Your task to perform on an android device: Add bose soundsport free to the cart on bestbuy Image 0: 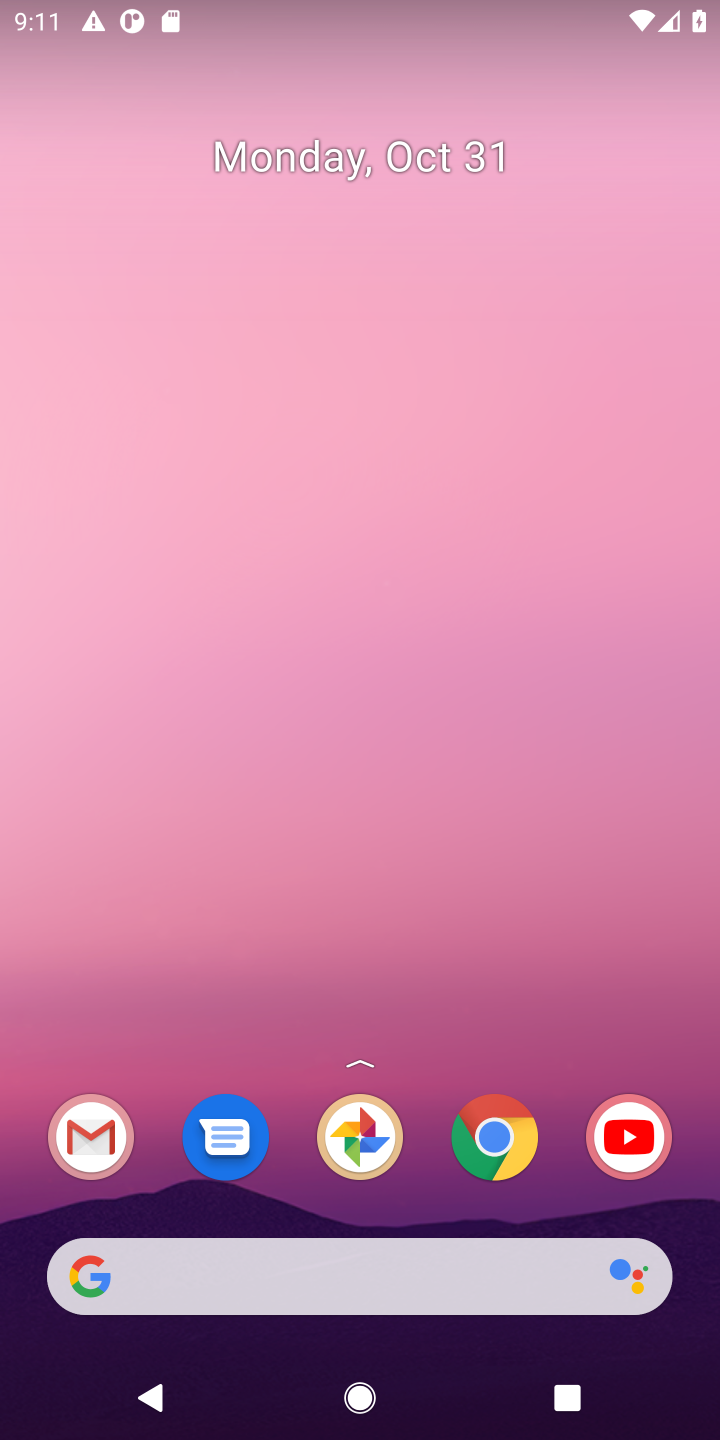
Step 0: click (492, 1156)
Your task to perform on an android device: Add bose soundsport free to the cart on bestbuy Image 1: 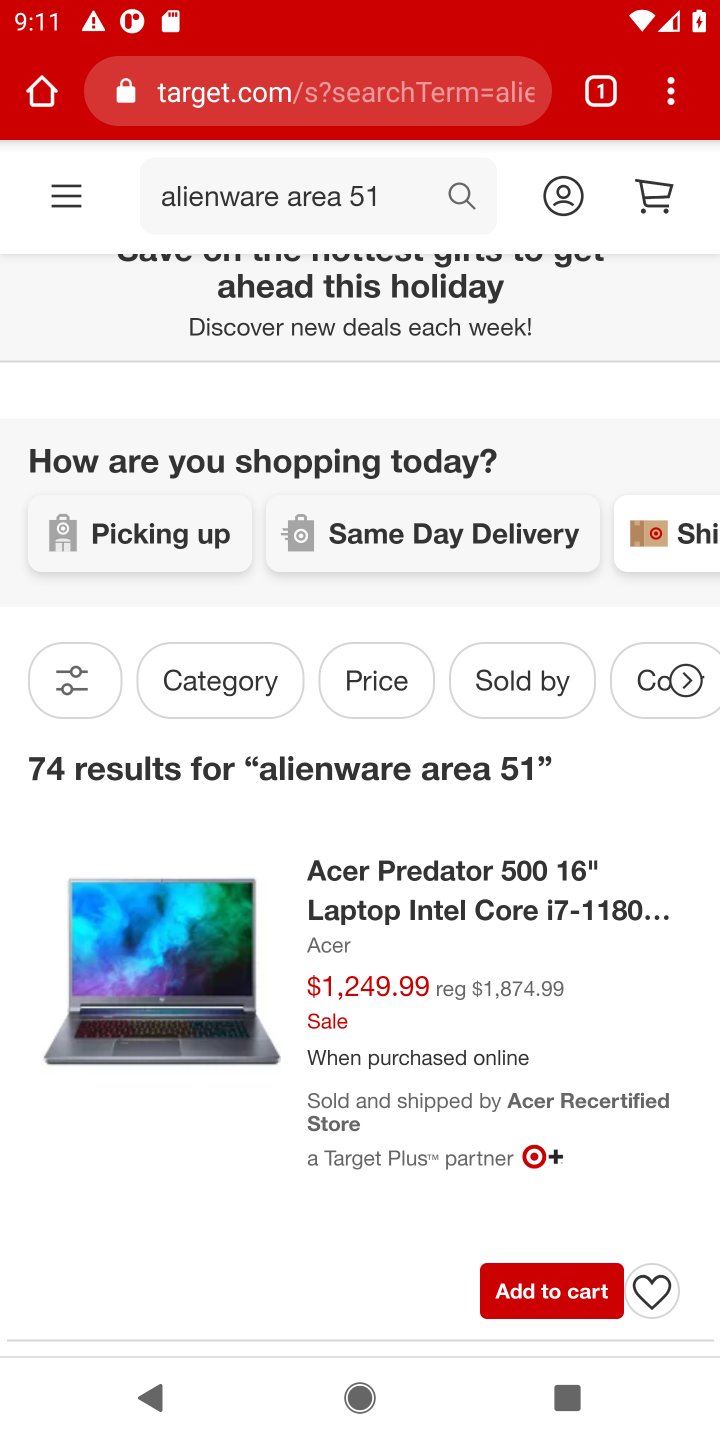
Step 1: click (288, 115)
Your task to perform on an android device: Add bose soundsport free to the cart on bestbuy Image 2: 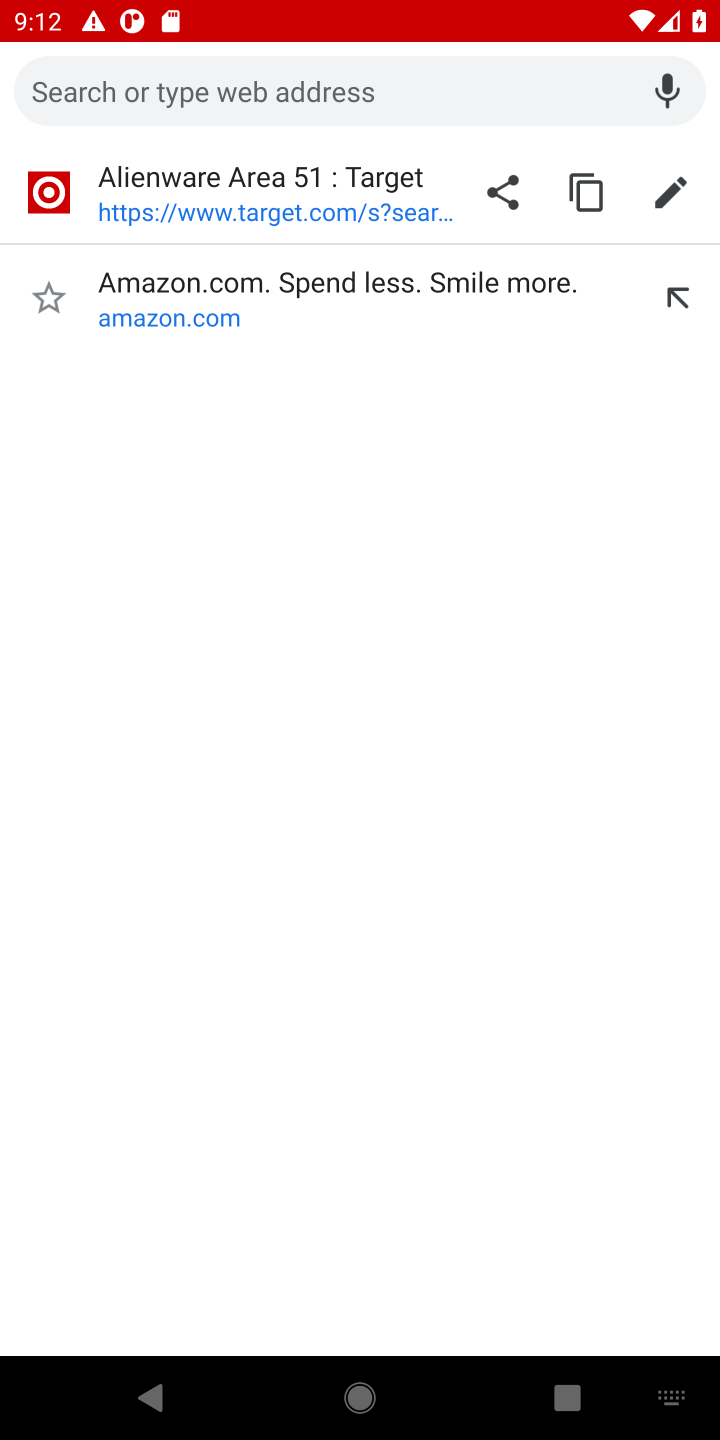
Step 2: type "bestbuy"
Your task to perform on an android device: Add bose soundsport free to the cart on bestbuy Image 3: 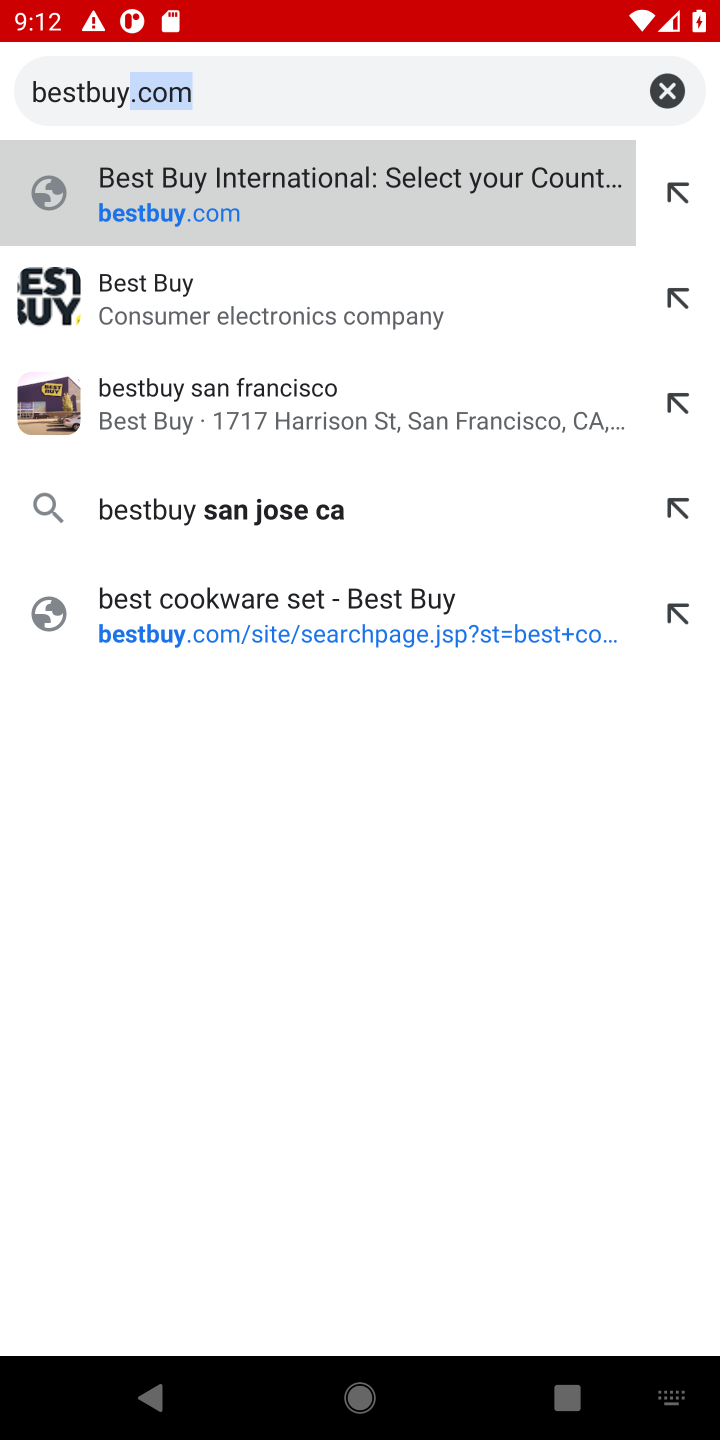
Step 3: click (187, 223)
Your task to perform on an android device: Add bose soundsport free to the cart on bestbuy Image 4: 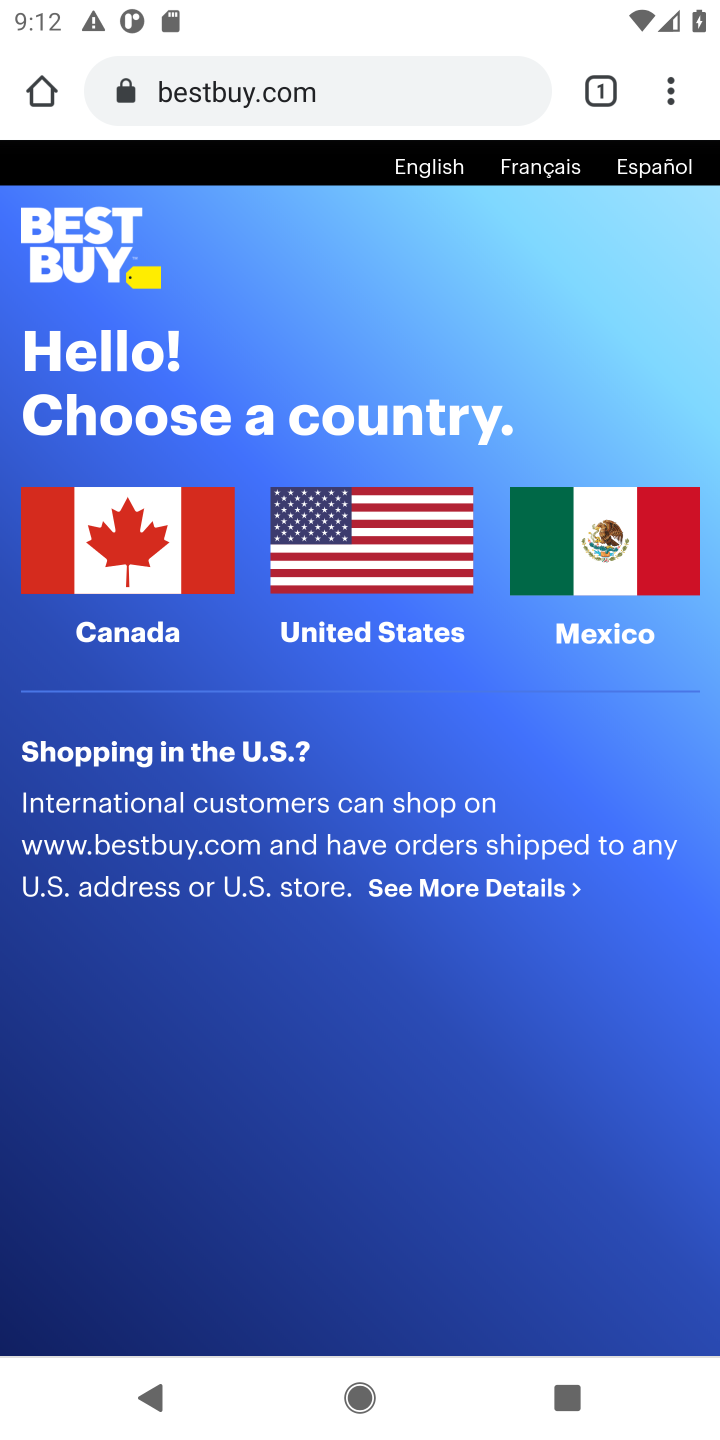
Step 4: click (382, 556)
Your task to perform on an android device: Add bose soundsport free to the cart on bestbuy Image 5: 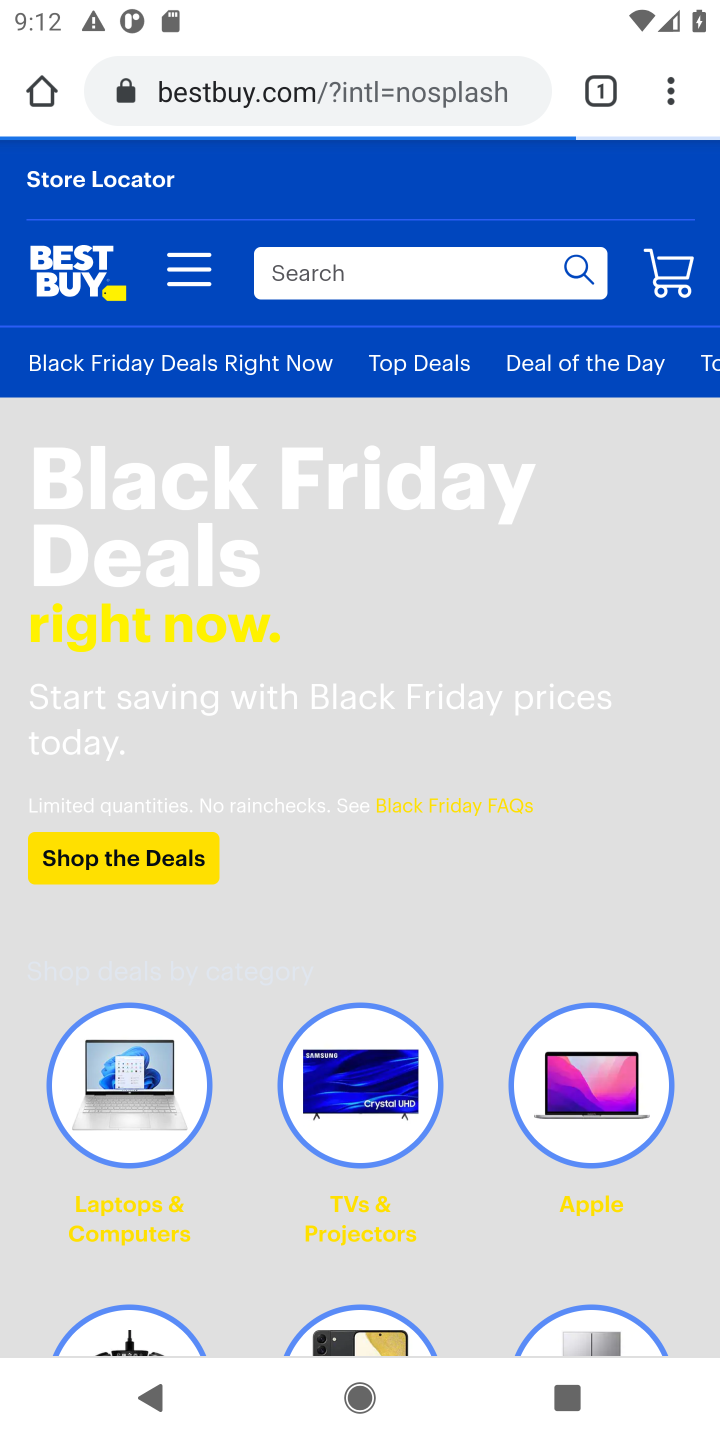
Step 5: click (364, 278)
Your task to perform on an android device: Add bose soundsport free to the cart on bestbuy Image 6: 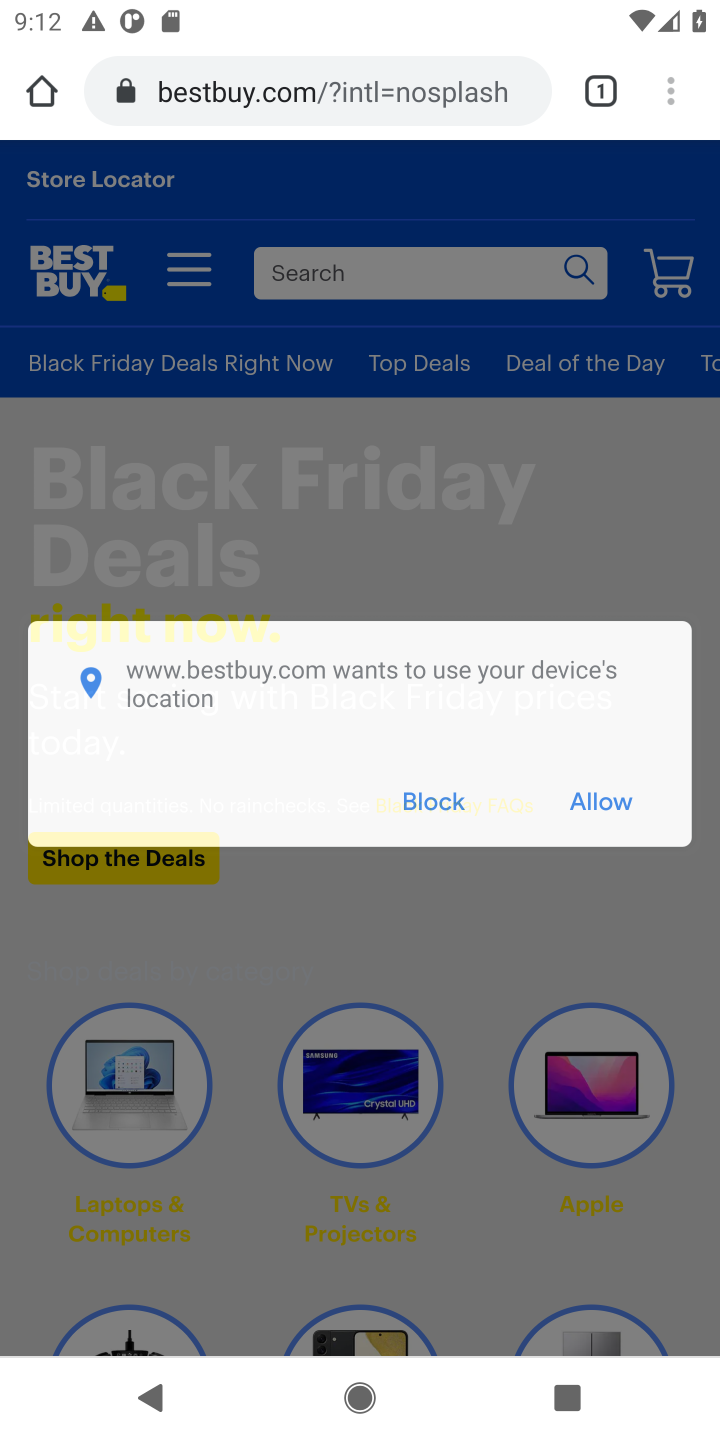
Step 6: type "bose soundsport free "
Your task to perform on an android device: Add bose soundsport free to the cart on bestbuy Image 7: 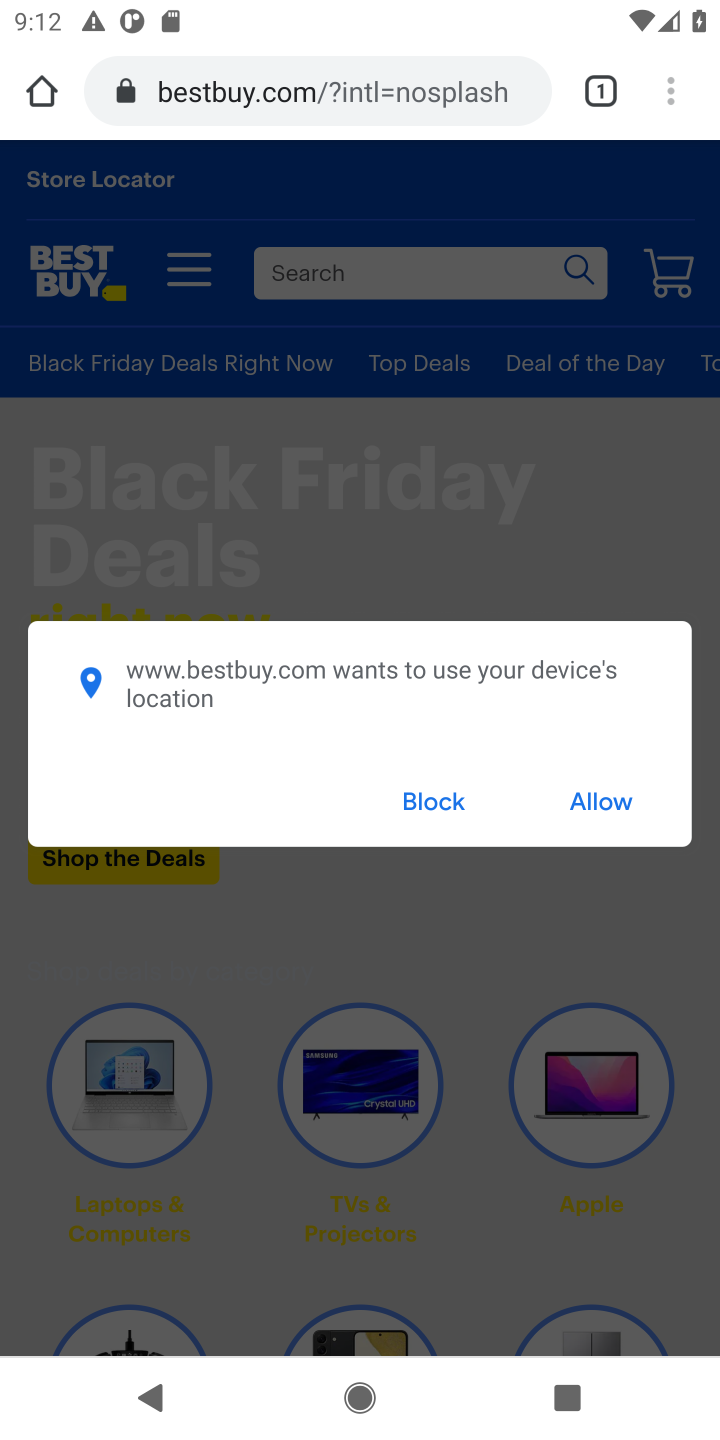
Step 7: click (441, 815)
Your task to perform on an android device: Add bose soundsport free to the cart on bestbuy Image 8: 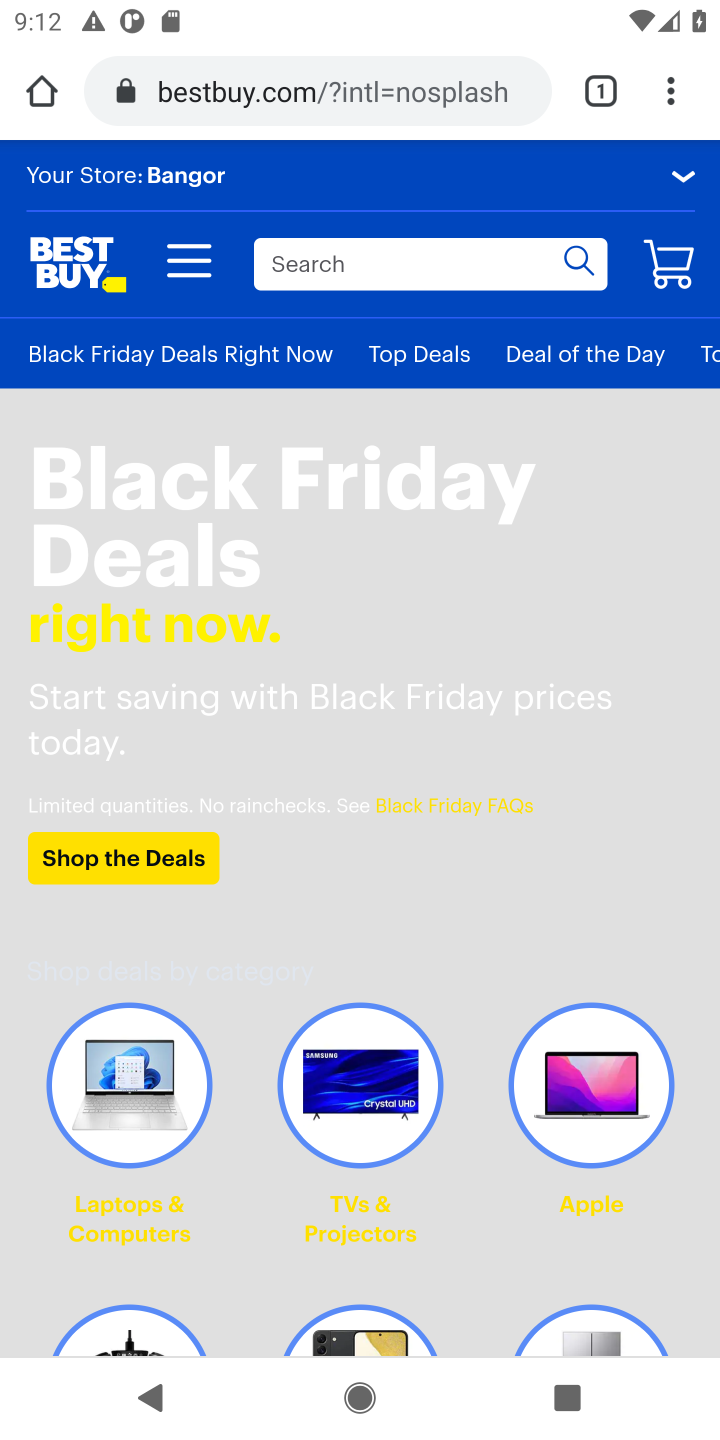
Step 8: click (378, 274)
Your task to perform on an android device: Add bose soundsport free to the cart on bestbuy Image 9: 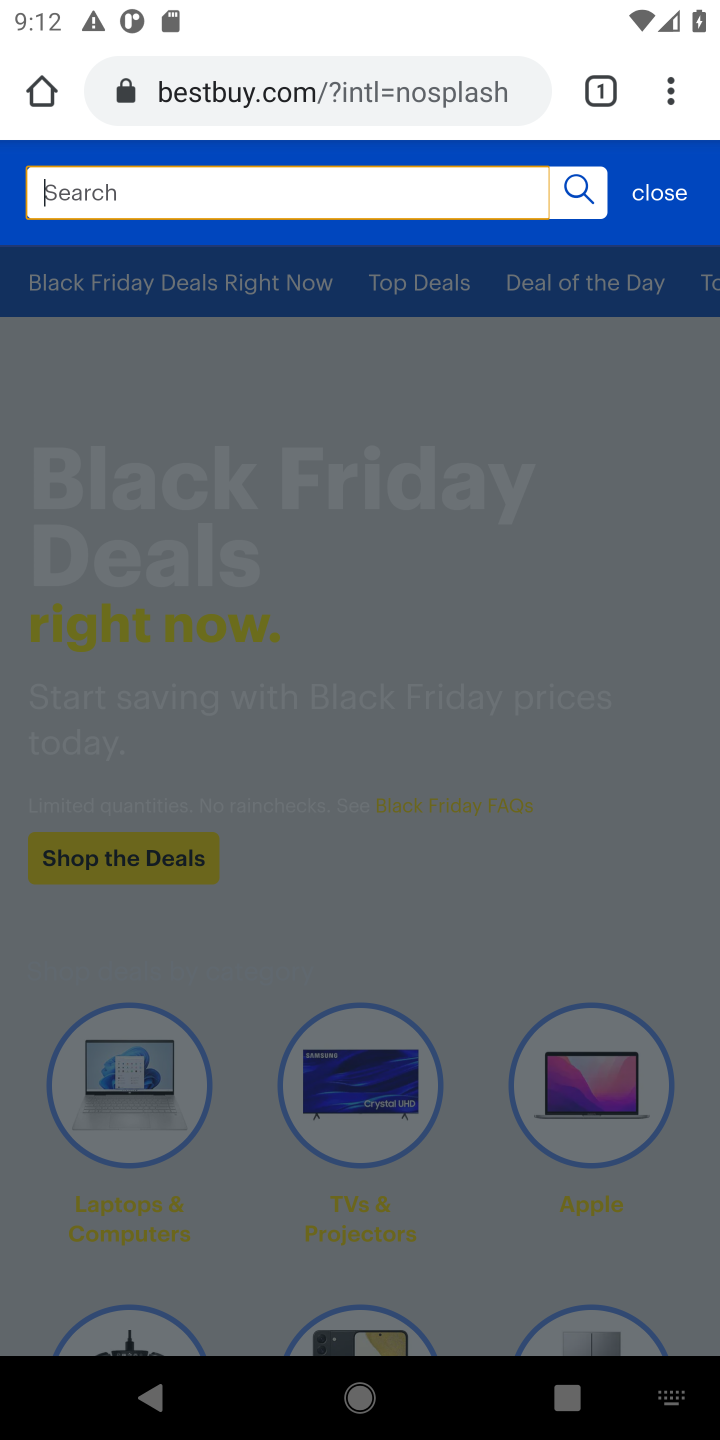
Step 9: type "bose soundsport free "
Your task to perform on an android device: Add bose soundsport free to the cart on bestbuy Image 10: 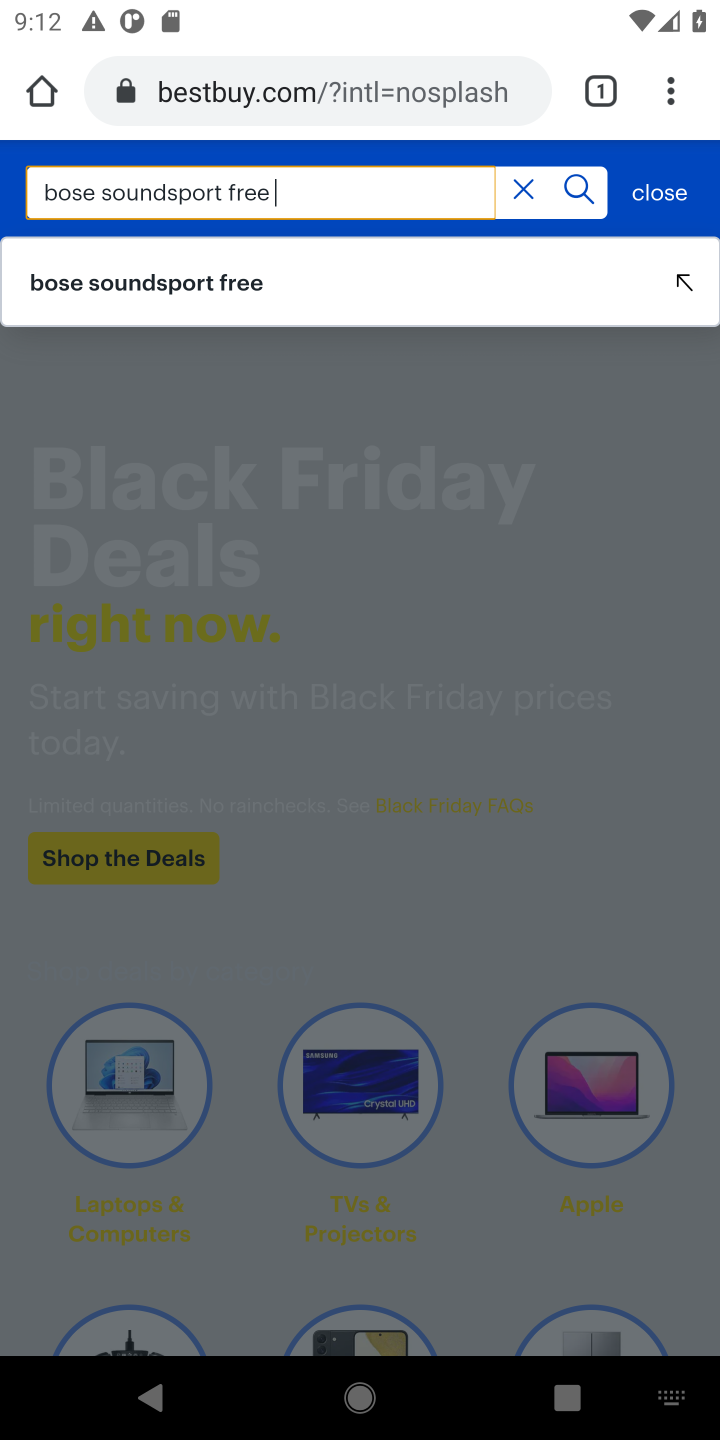
Step 10: click (178, 277)
Your task to perform on an android device: Add bose soundsport free to the cart on bestbuy Image 11: 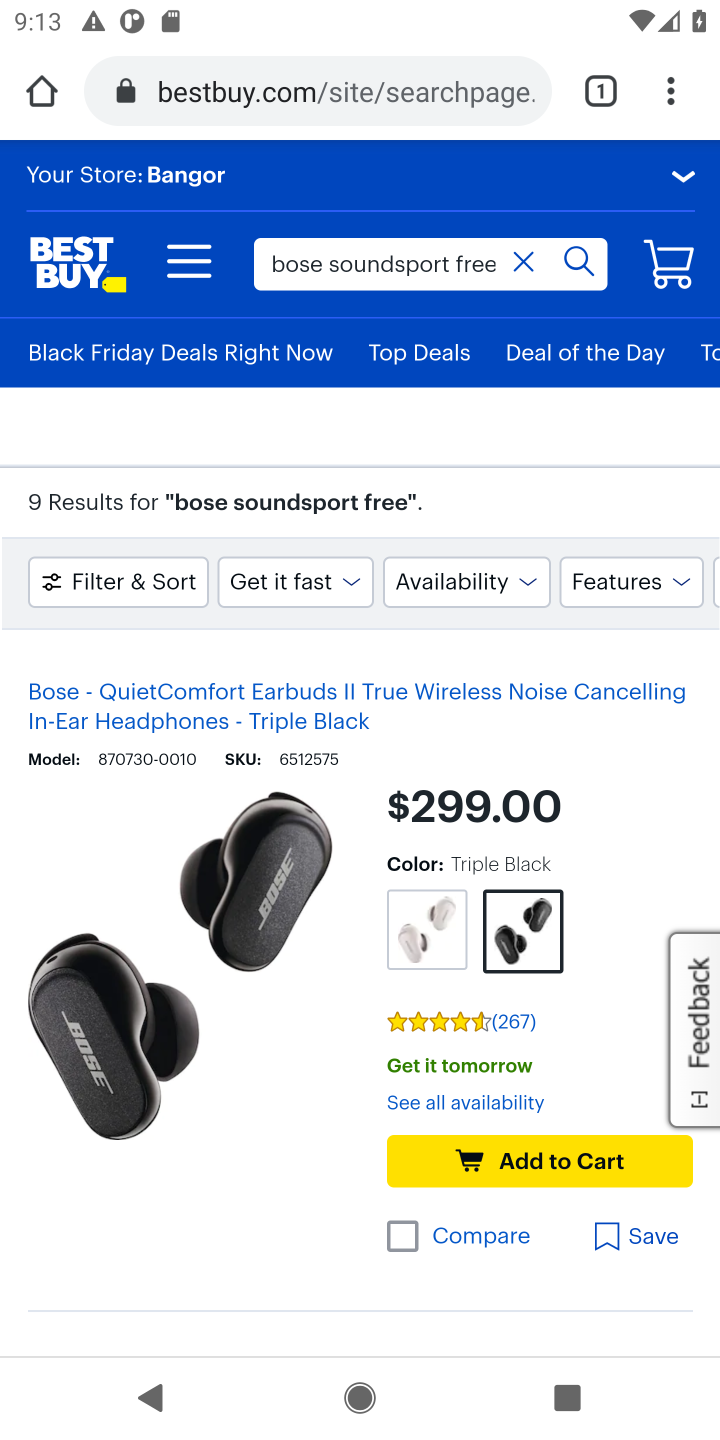
Step 11: drag from (226, 1106) to (266, 637)
Your task to perform on an android device: Add bose soundsport free to the cart on bestbuy Image 12: 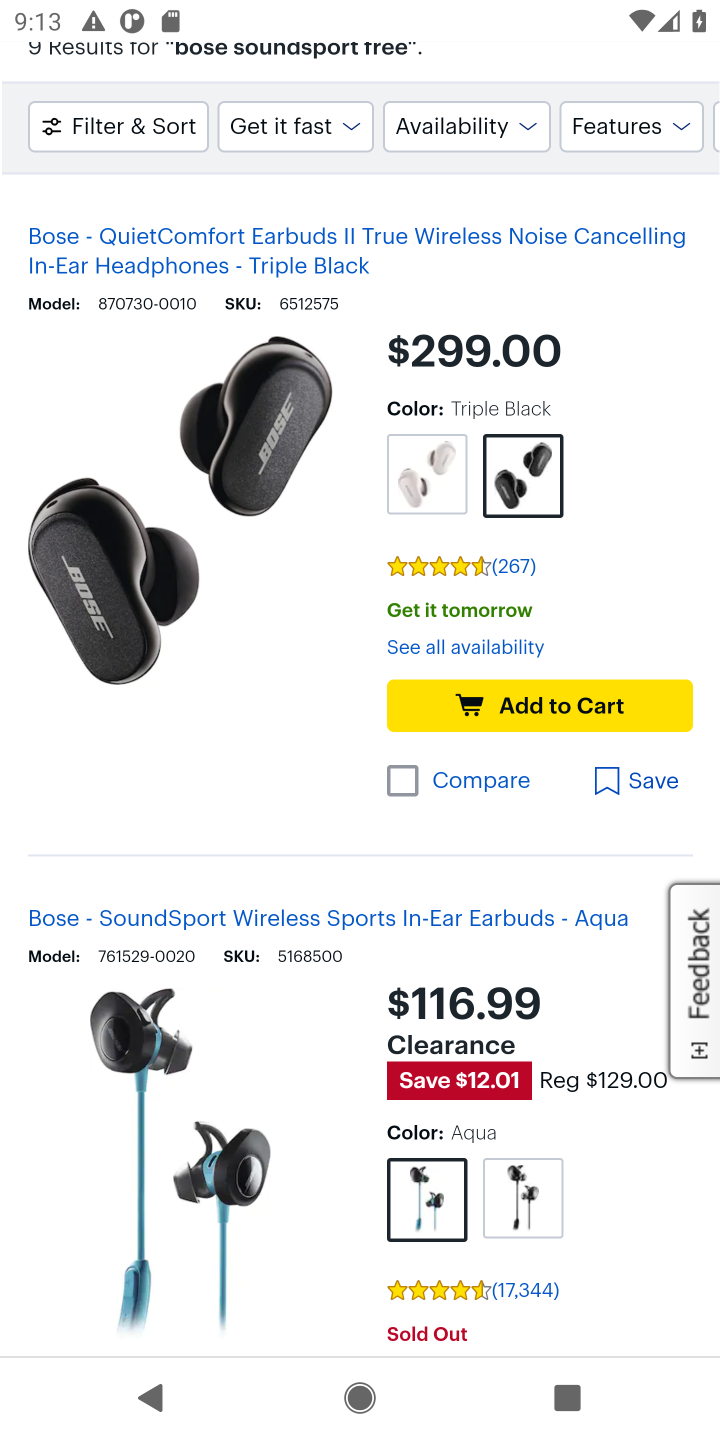
Step 12: drag from (231, 1162) to (173, 652)
Your task to perform on an android device: Add bose soundsport free to the cart on bestbuy Image 13: 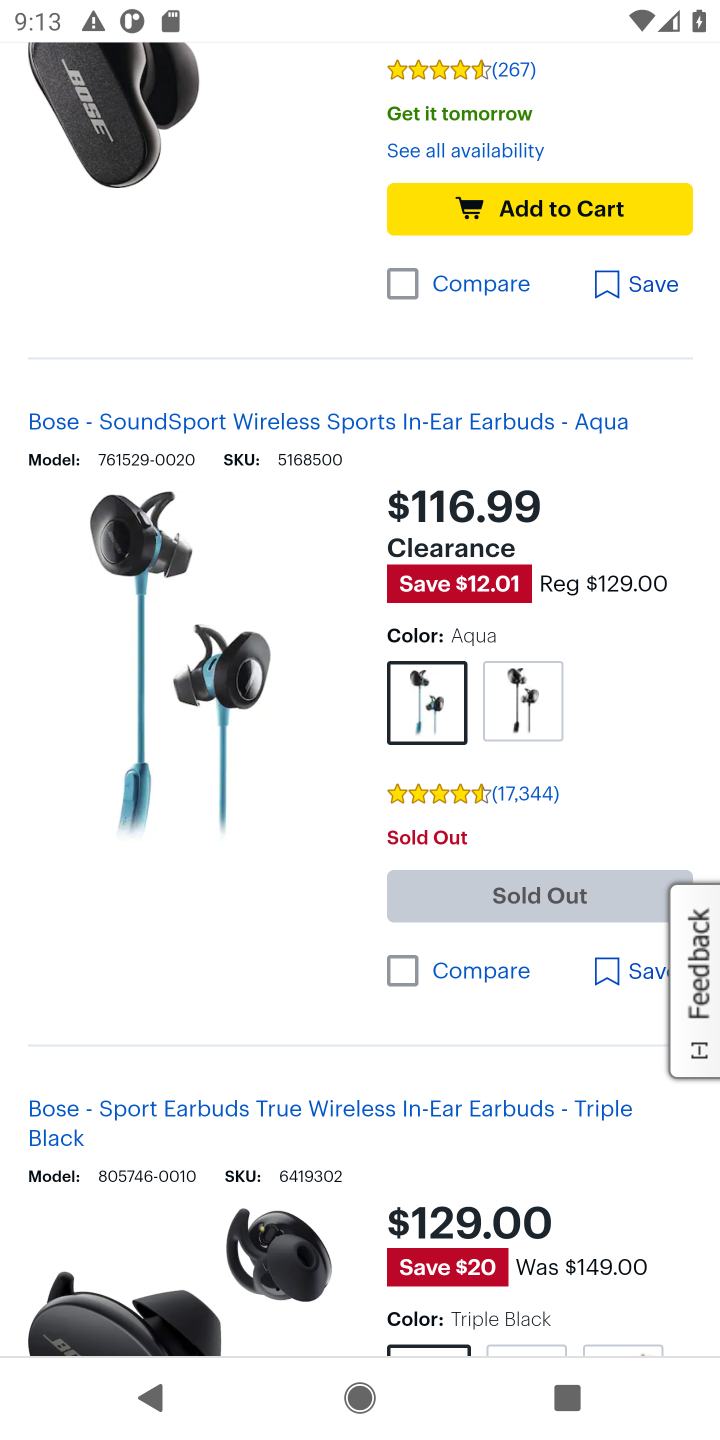
Step 13: drag from (183, 1165) to (200, 821)
Your task to perform on an android device: Add bose soundsport free to the cart on bestbuy Image 14: 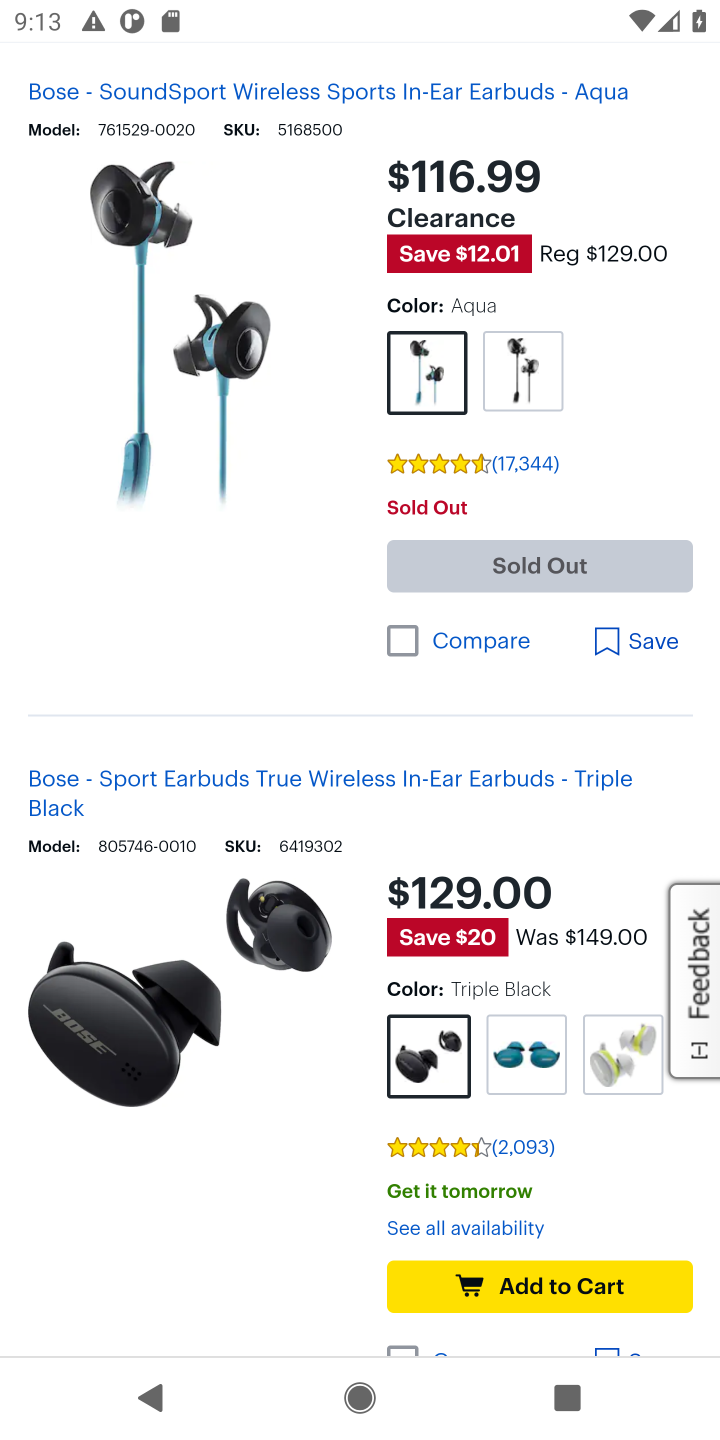
Step 14: click (183, 1026)
Your task to perform on an android device: Add bose soundsport free to the cart on bestbuy Image 15: 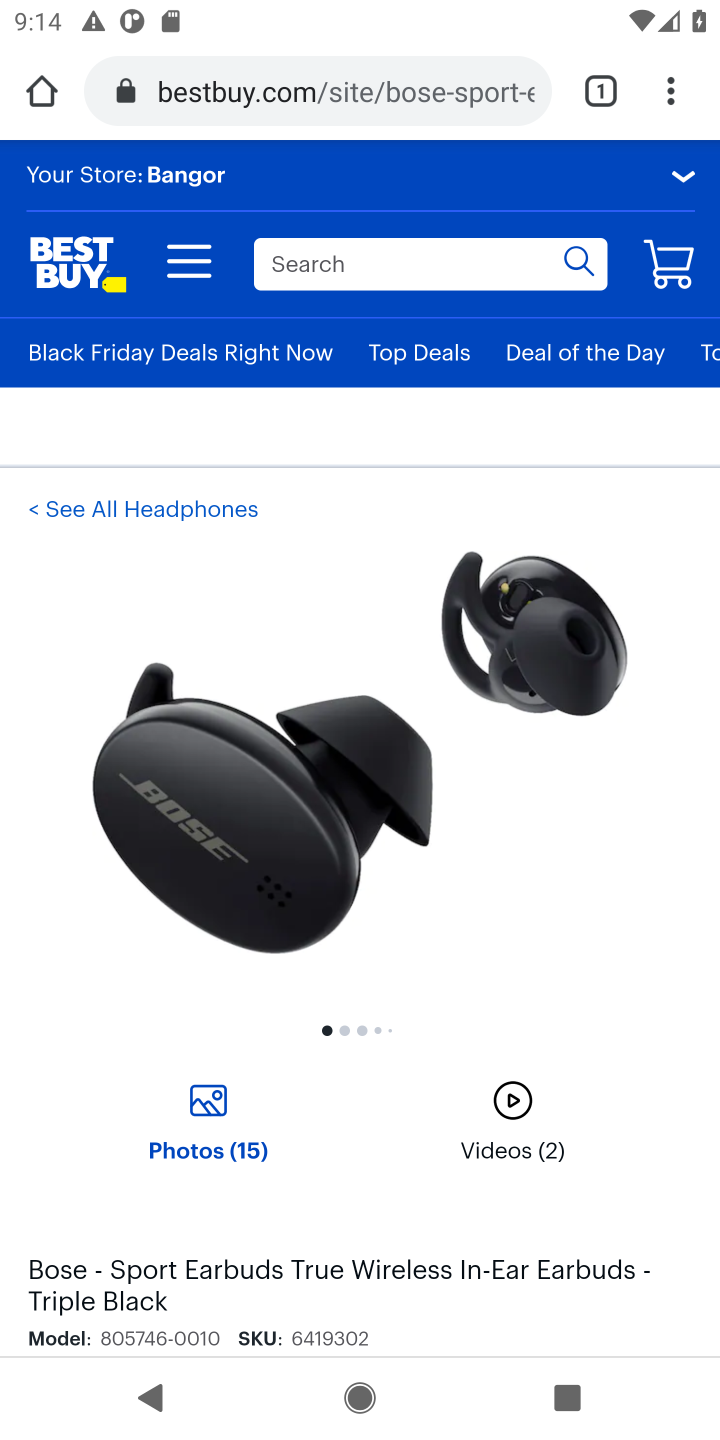
Step 15: drag from (381, 942) to (371, 353)
Your task to perform on an android device: Add bose soundsport free to the cart on bestbuy Image 16: 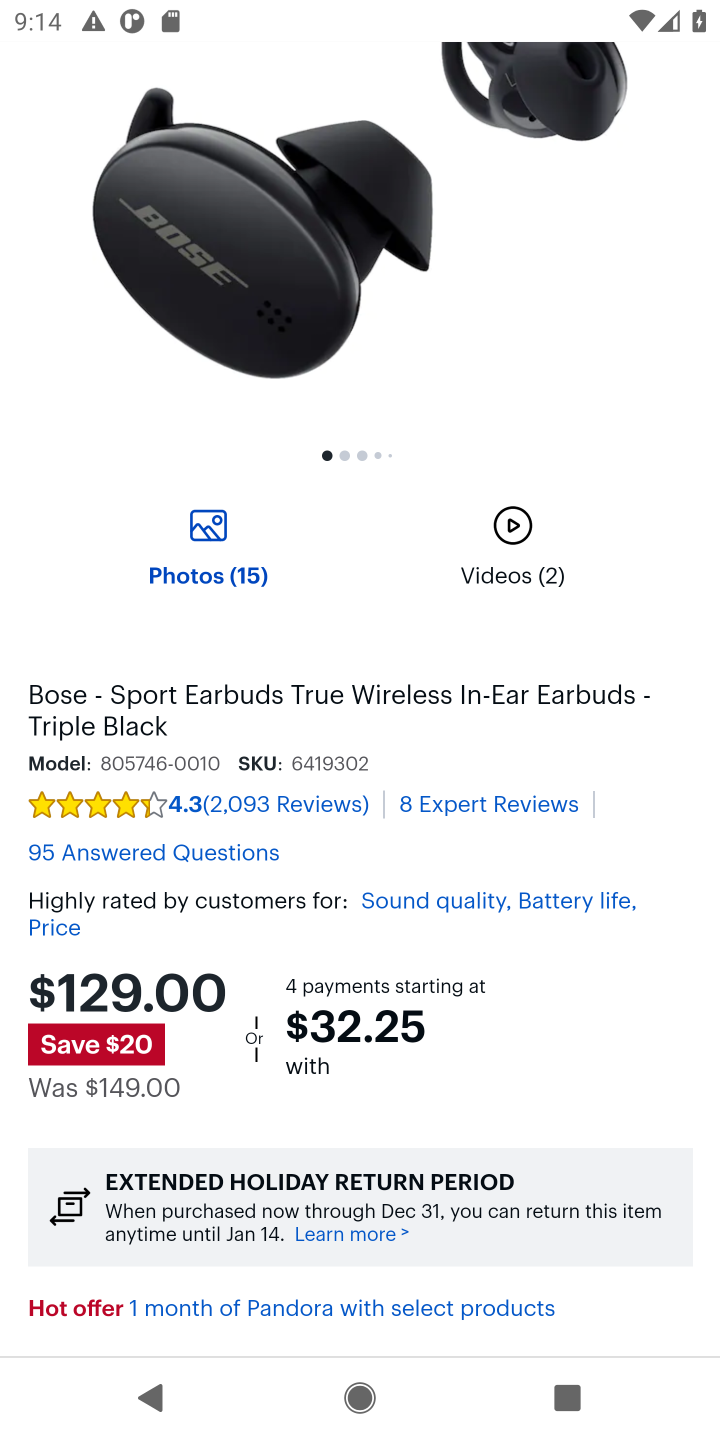
Step 16: drag from (269, 919) to (275, 469)
Your task to perform on an android device: Add bose soundsport free to the cart on bestbuy Image 17: 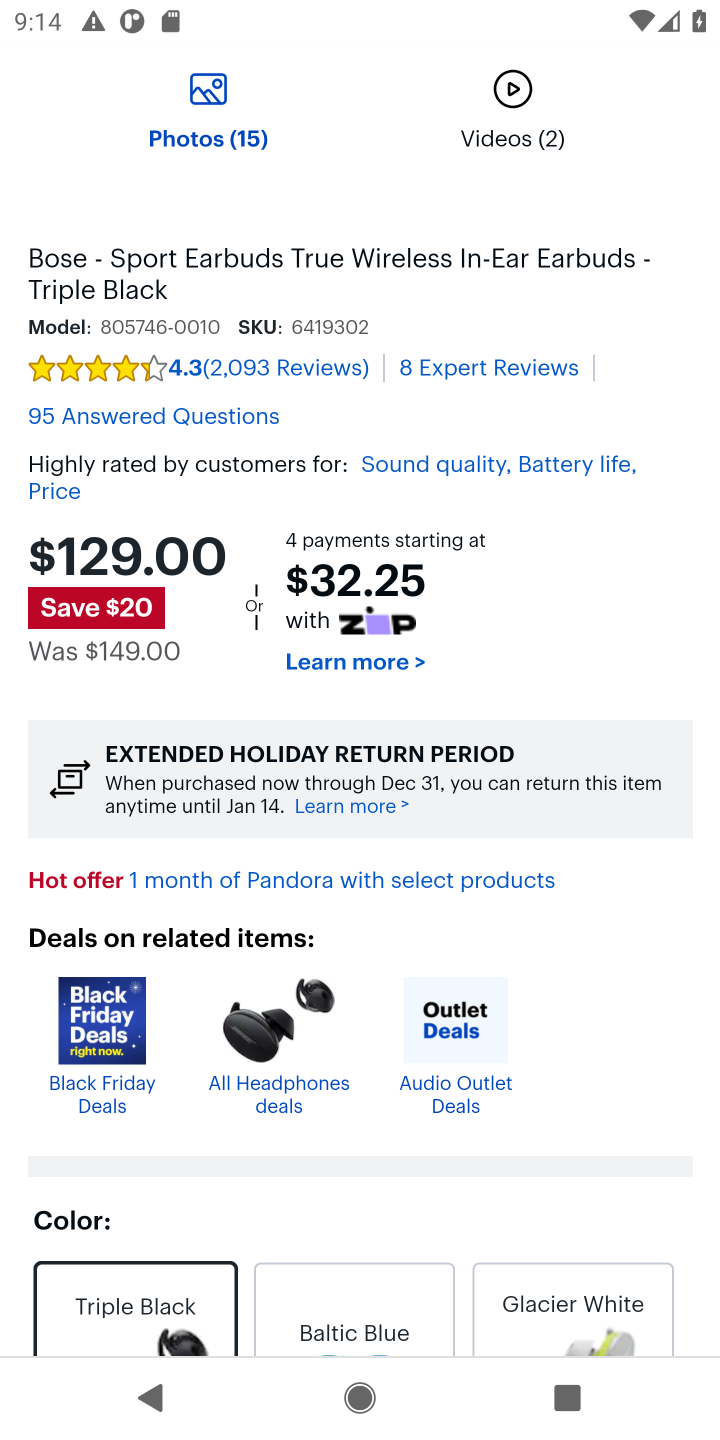
Step 17: drag from (366, 1164) to (286, 433)
Your task to perform on an android device: Add bose soundsport free to the cart on bestbuy Image 18: 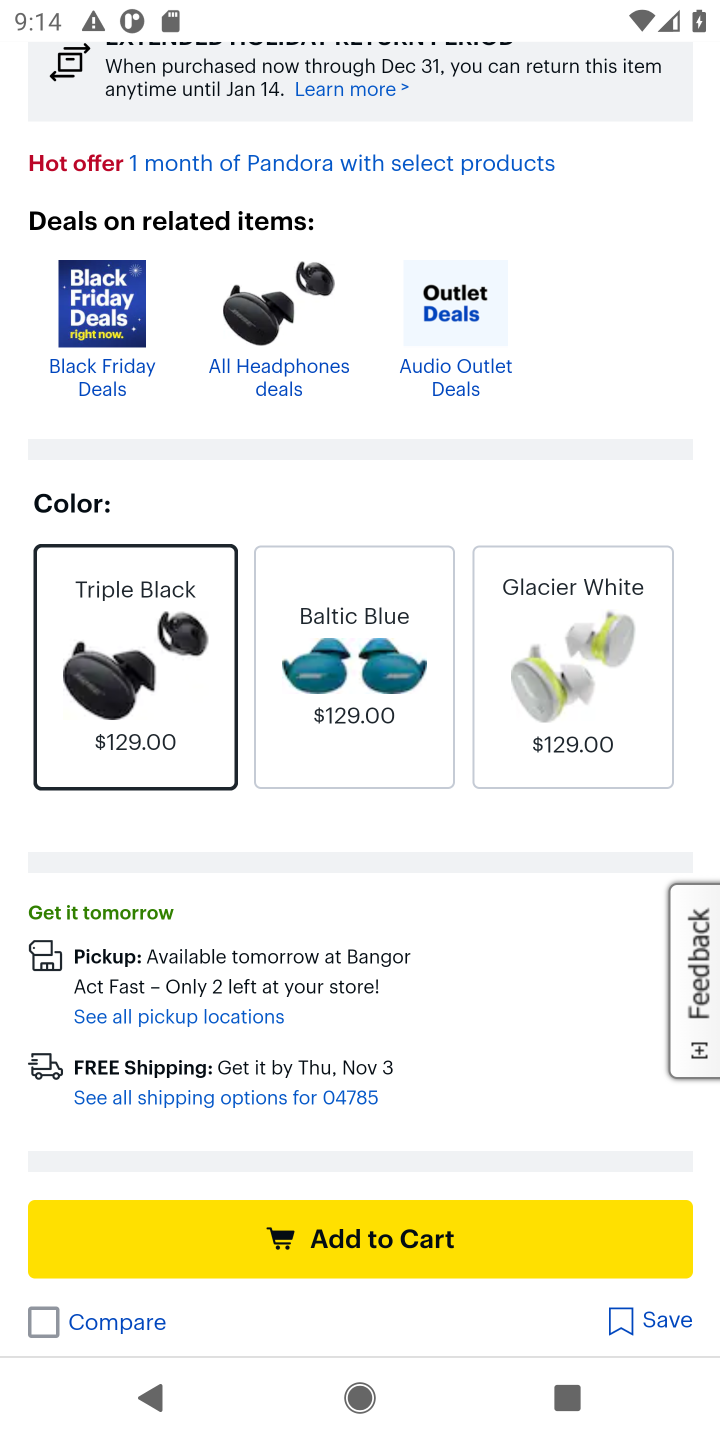
Step 18: click (330, 1235)
Your task to perform on an android device: Add bose soundsport free to the cart on bestbuy Image 19: 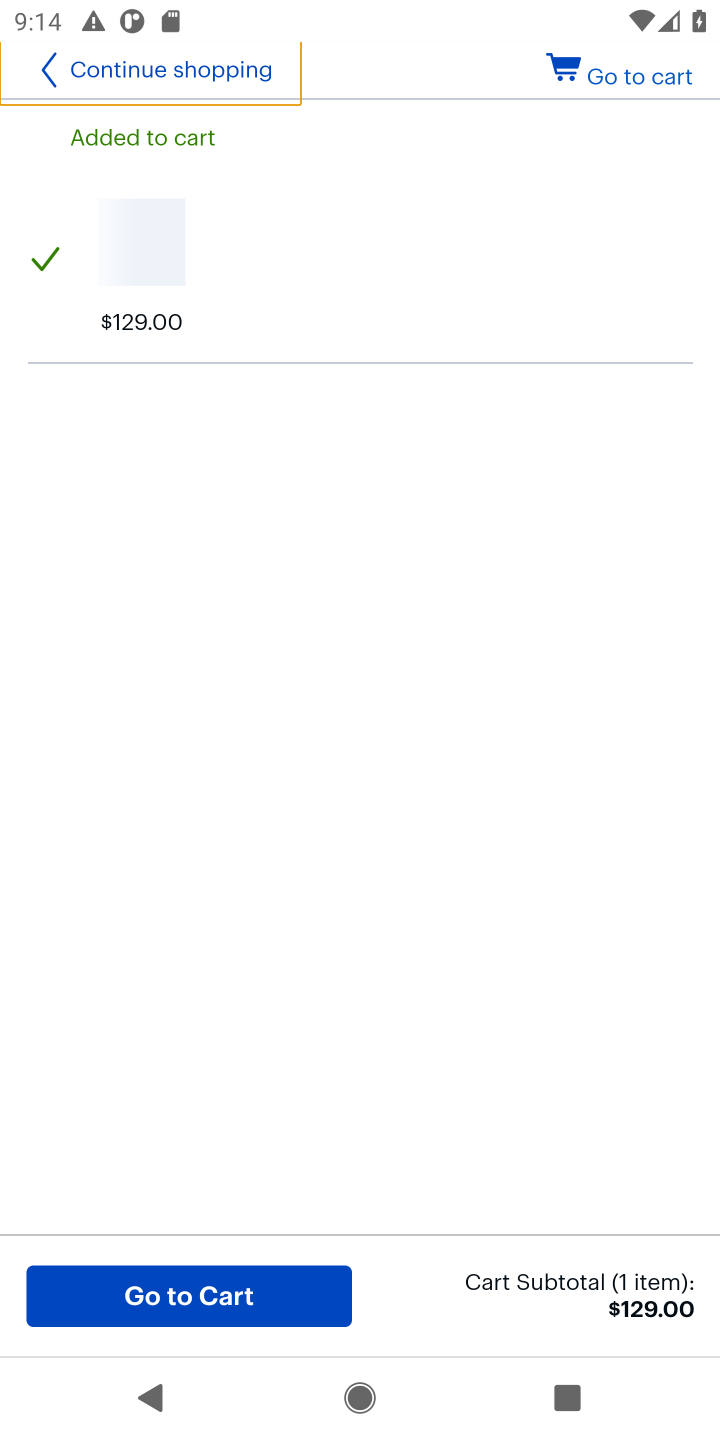
Step 19: task complete